Your task to perform on an android device: turn off translation in the chrome app Image 0: 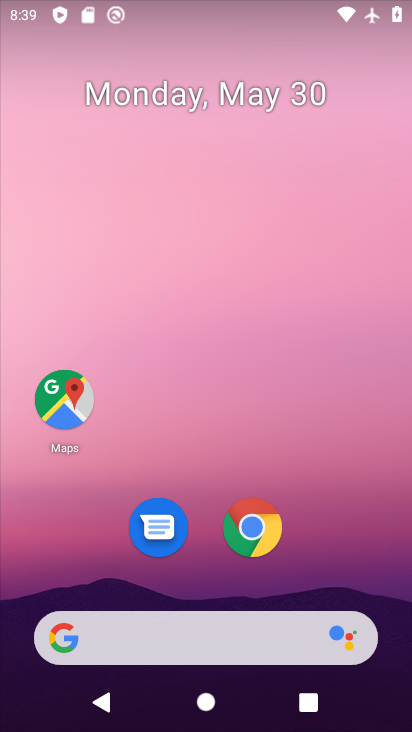
Step 0: click (246, 528)
Your task to perform on an android device: turn off translation in the chrome app Image 1: 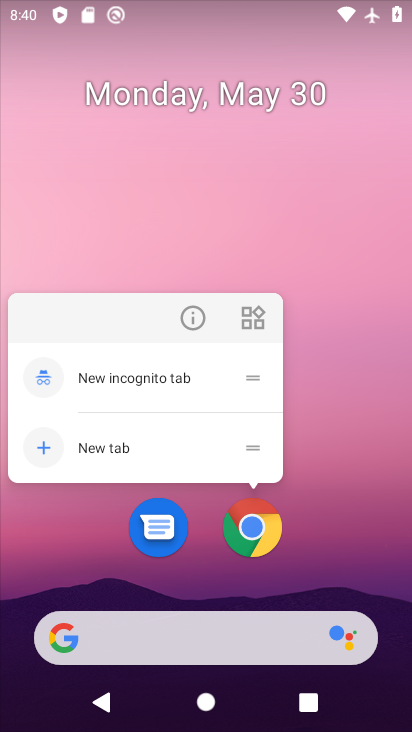
Step 1: click (240, 518)
Your task to perform on an android device: turn off translation in the chrome app Image 2: 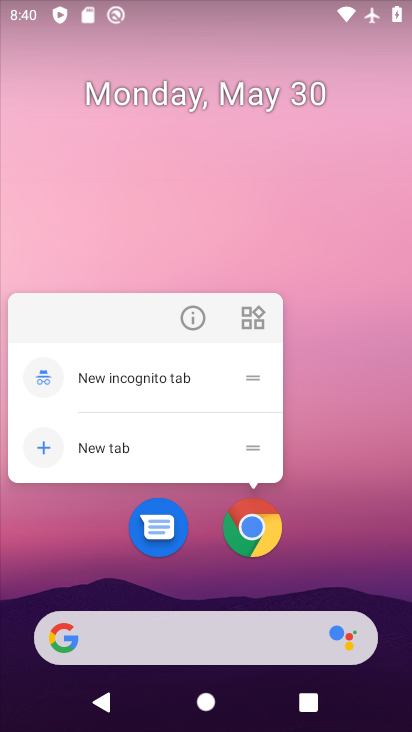
Step 2: click (252, 530)
Your task to perform on an android device: turn off translation in the chrome app Image 3: 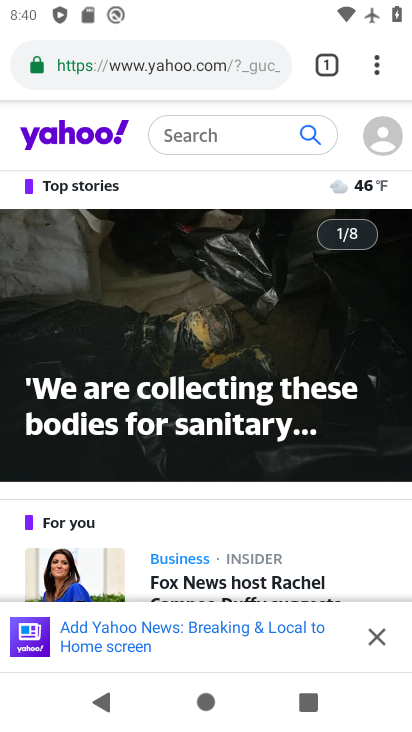
Step 3: click (368, 77)
Your task to perform on an android device: turn off translation in the chrome app Image 4: 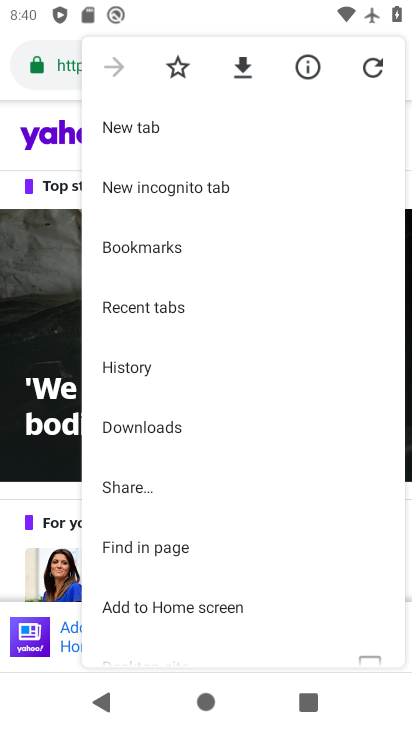
Step 4: drag from (185, 537) to (158, 140)
Your task to perform on an android device: turn off translation in the chrome app Image 5: 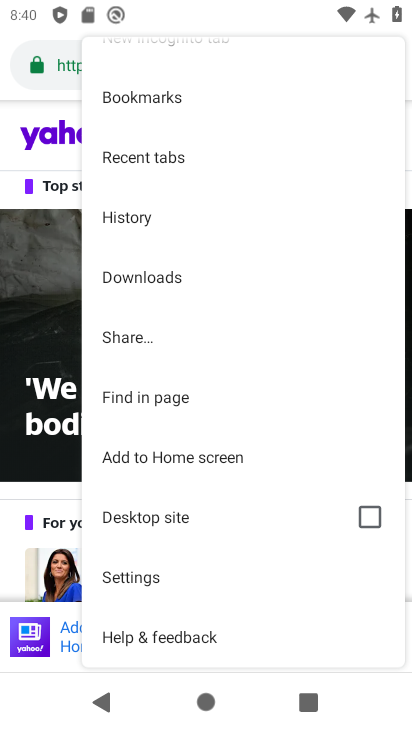
Step 5: click (179, 573)
Your task to perform on an android device: turn off translation in the chrome app Image 6: 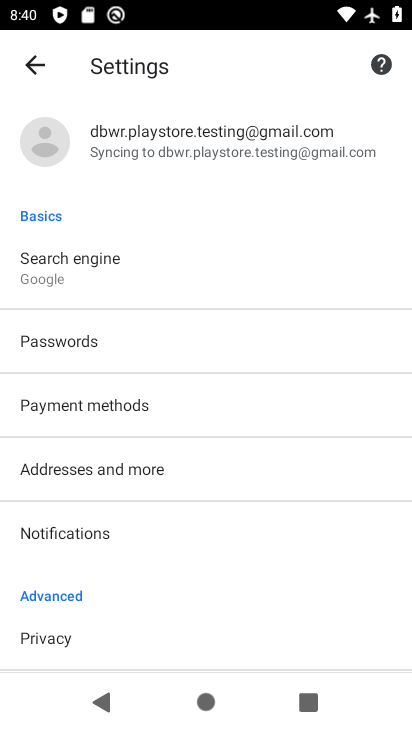
Step 6: drag from (181, 602) to (121, 338)
Your task to perform on an android device: turn off translation in the chrome app Image 7: 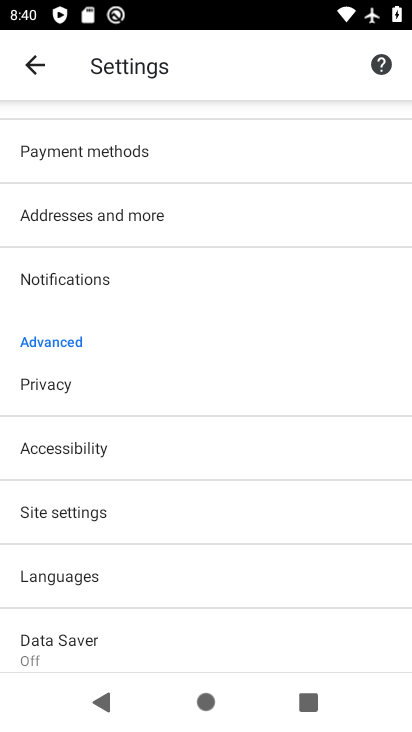
Step 7: click (90, 572)
Your task to perform on an android device: turn off translation in the chrome app Image 8: 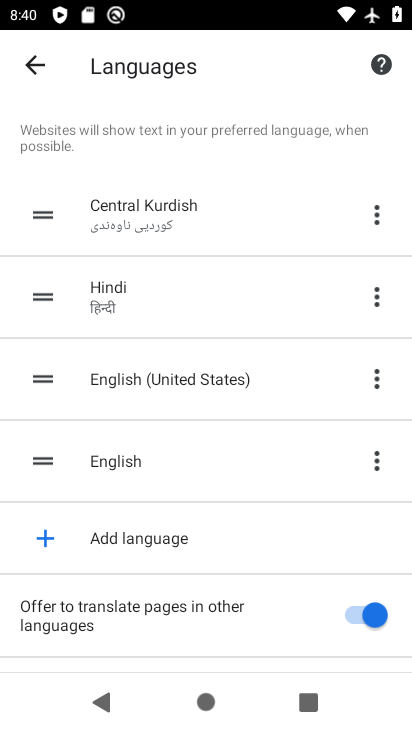
Step 8: click (361, 615)
Your task to perform on an android device: turn off translation in the chrome app Image 9: 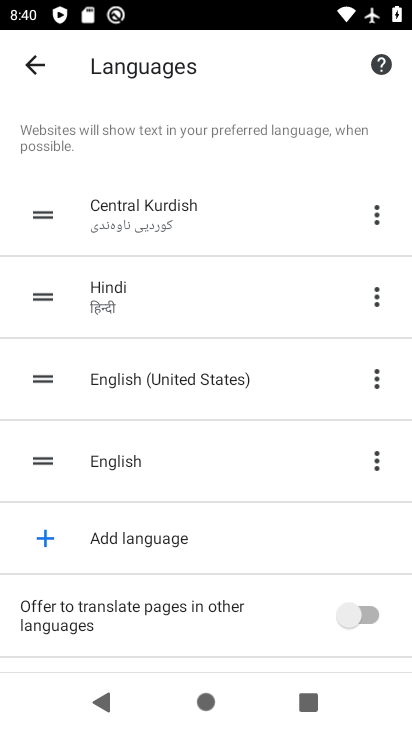
Step 9: task complete